Your task to perform on an android device: Show me recent news Image 0: 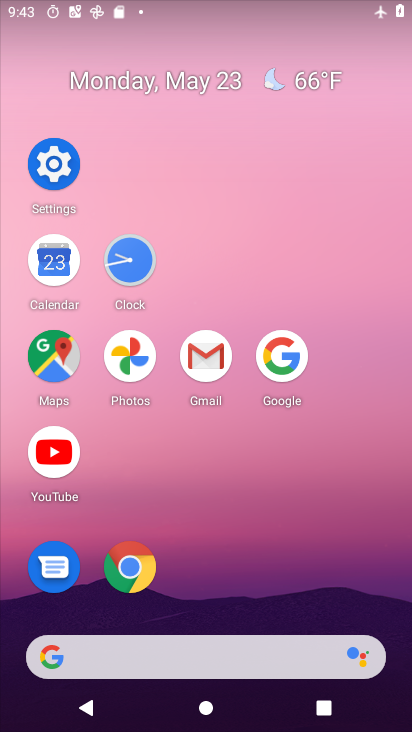
Step 0: click (294, 344)
Your task to perform on an android device: Show me recent news Image 1: 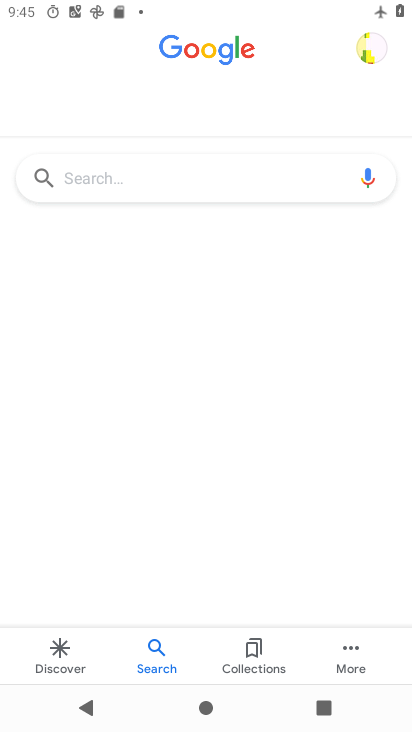
Step 1: click (166, 200)
Your task to perform on an android device: Show me recent news Image 2: 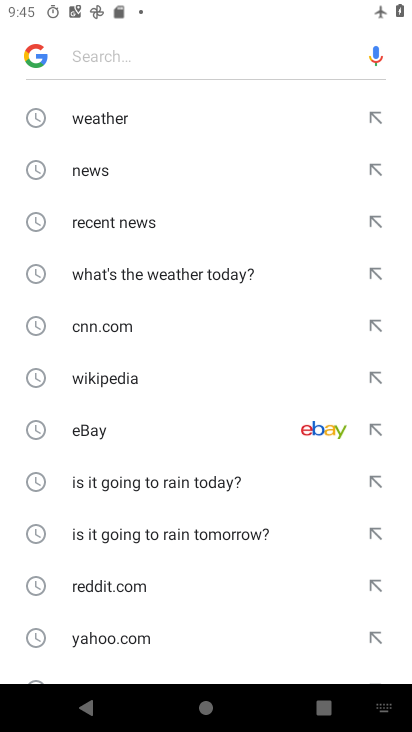
Step 2: click (176, 217)
Your task to perform on an android device: Show me recent news Image 3: 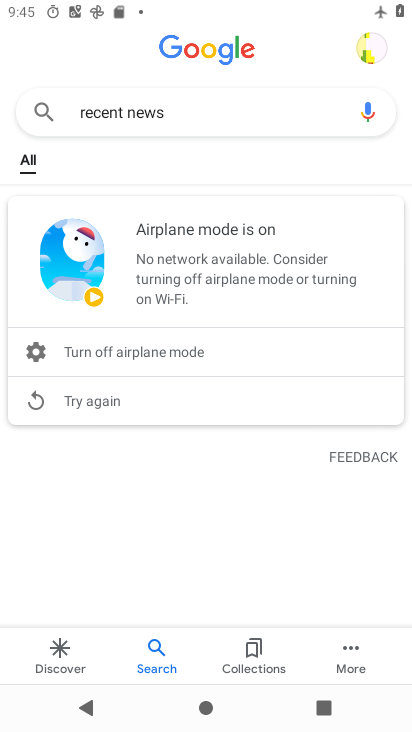
Step 3: task complete